Your task to perform on an android device: Go to Google maps Image 0: 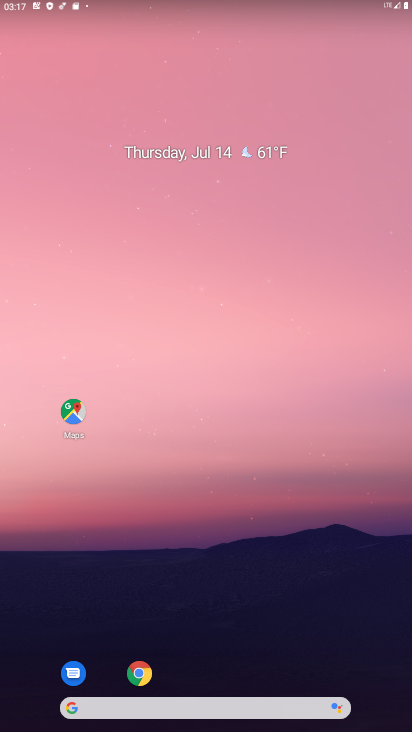
Step 0: drag from (340, 655) to (220, 156)
Your task to perform on an android device: Go to Google maps Image 1: 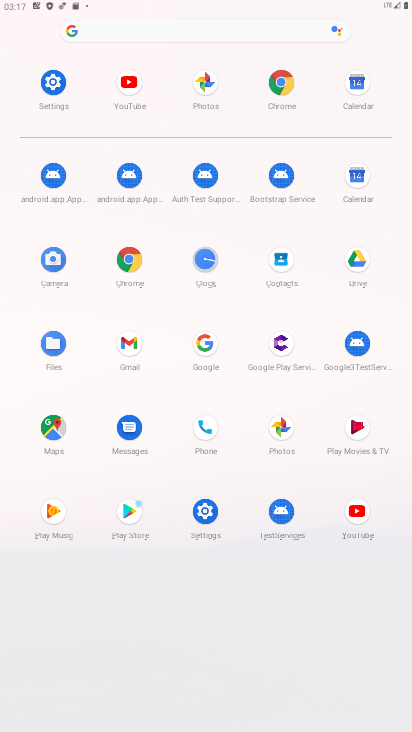
Step 1: click (255, 430)
Your task to perform on an android device: Go to Google maps Image 2: 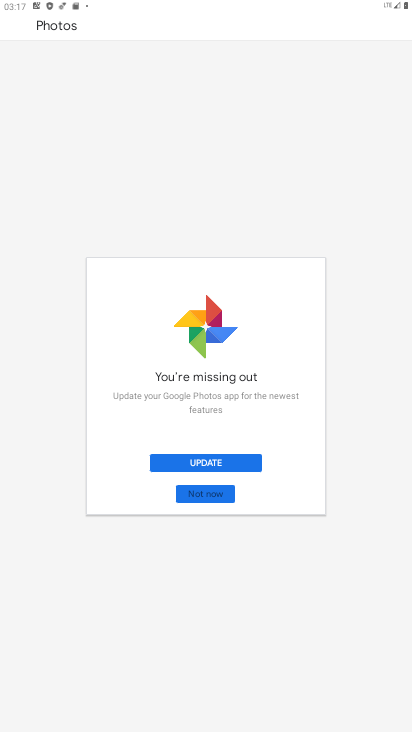
Step 2: click (214, 466)
Your task to perform on an android device: Go to Google maps Image 3: 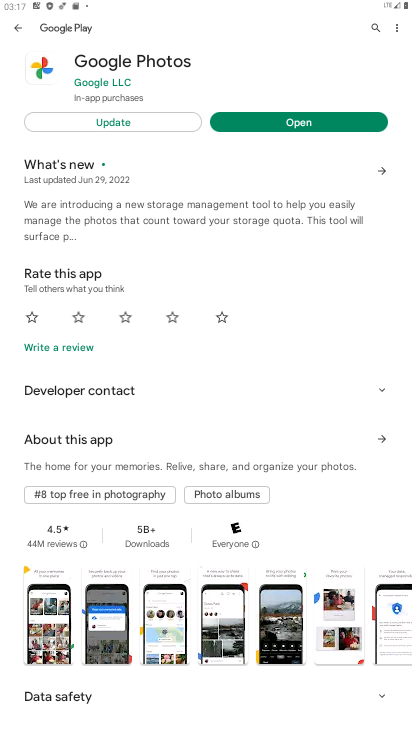
Step 3: click (163, 127)
Your task to perform on an android device: Go to Google maps Image 4: 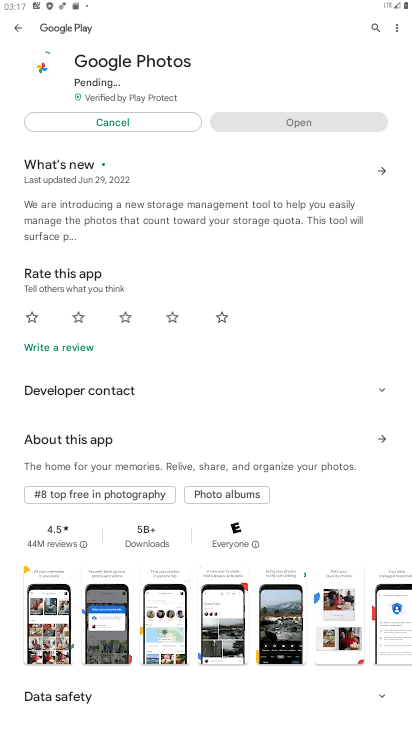
Step 4: press home button
Your task to perform on an android device: Go to Google maps Image 5: 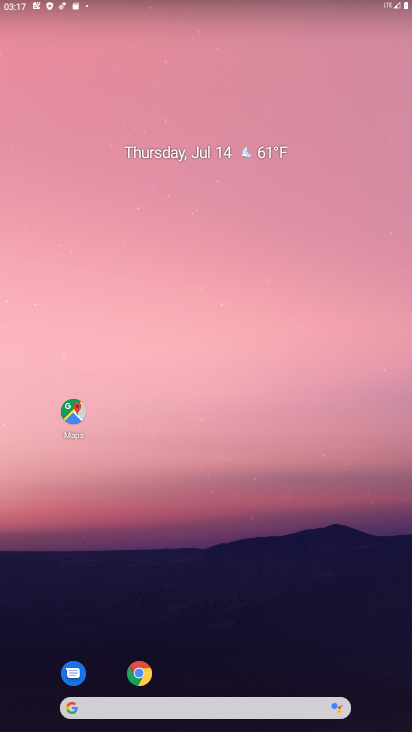
Step 5: click (66, 416)
Your task to perform on an android device: Go to Google maps Image 6: 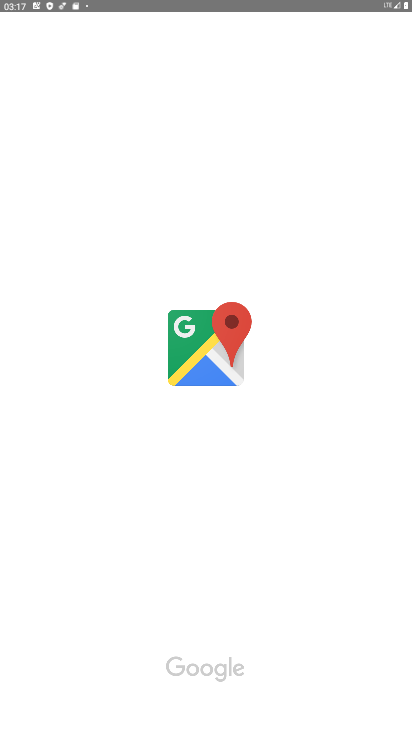
Step 6: task complete